Your task to perform on an android device: Open calendar and show me the third week of next month Image 0: 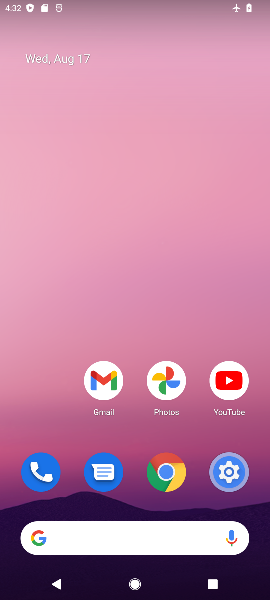
Step 0: drag from (144, 429) to (147, 72)
Your task to perform on an android device: Open calendar and show me the third week of next month Image 1: 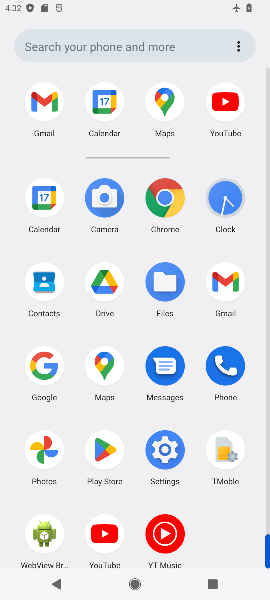
Step 1: click (98, 109)
Your task to perform on an android device: Open calendar and show me the third week of next month Image 2: 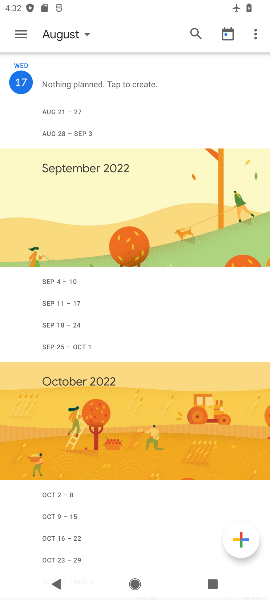
Step 2: click (69, 37)
Your task to perform on an android device: Open calendar and show me the third week of next month Image 3: 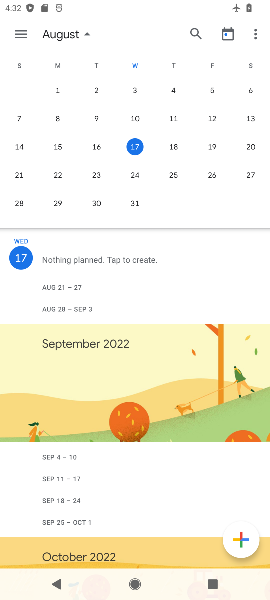
Step 3: drag from (223, 147) to (21, 111)
Your task to perform on an android device: Open calendar and show me the third week of next month Image 4: 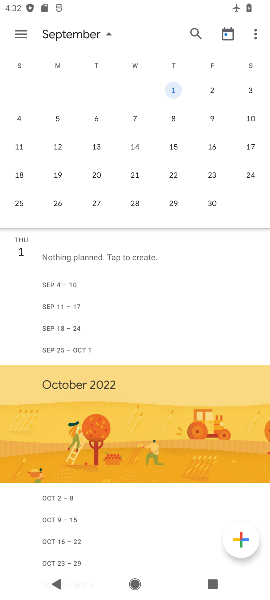
Step 4: click (24, 149)
Your task to perform on an android device: Open calendar and show me the third week of next month Image 5: 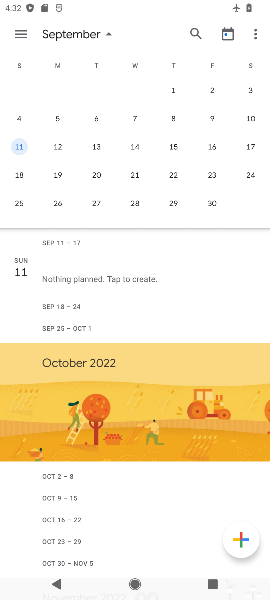
Step 5: task complete